Your task to perform on an android device: Go to settings Image 0: 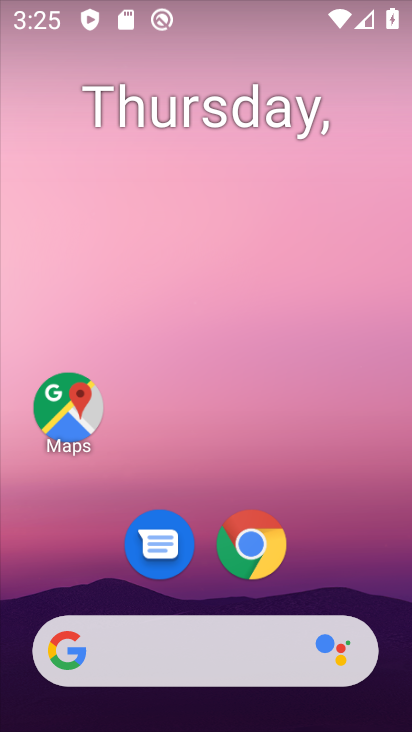
Step 0: drag from (311, 505) to (368, 111)
Your task to perform on an android device: Go to settings Image 1: 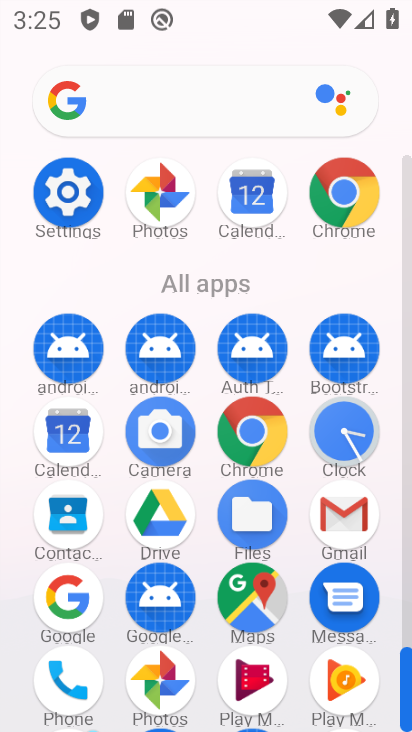
Step 1: click (89, 254)
Your task to perform on an android device: Go to settings Image 2: 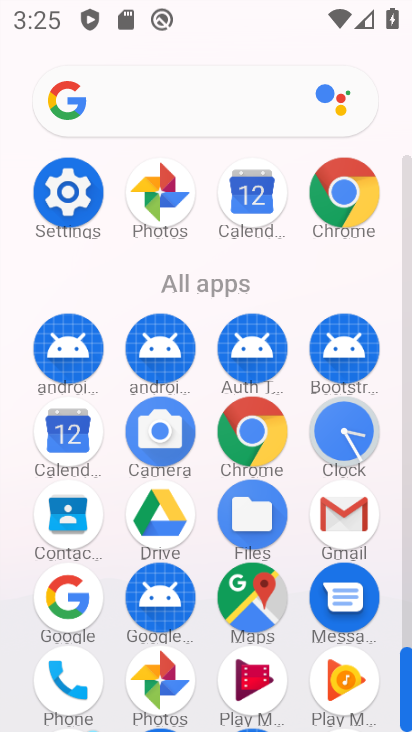
Step 2: click (73, 208)
Your task to perform on an android device: Go to settings Image 3: 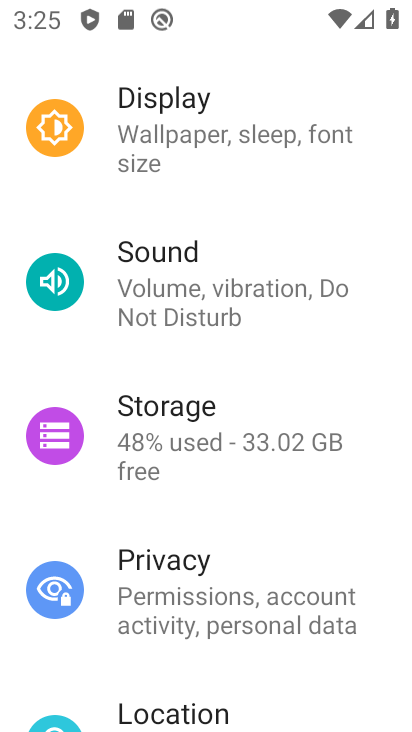
Step 3: task complete